Your task to perform on an android device: Go to CNN.com Image 0: 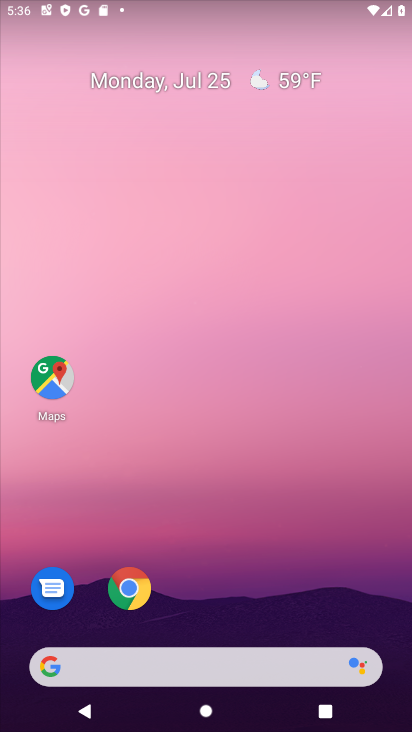
Step 0: click (267, 662)
Your task to perform on an android device: Go to CNN.com Image 1: 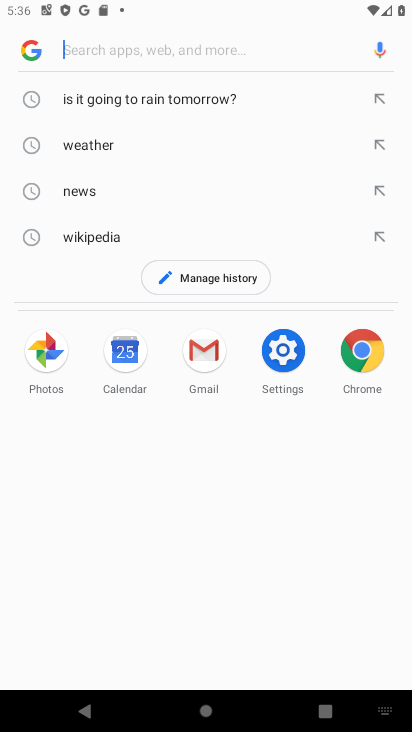
Step 1: type "CNN.com"
Your task to perform on an android device: Go to CNN.com Image 2: 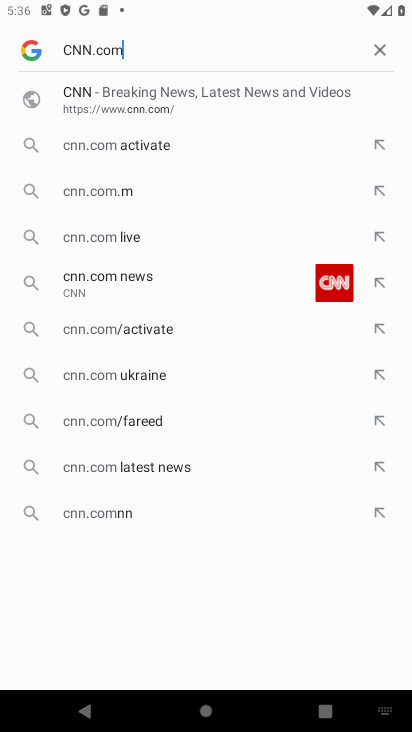
Step 2: press enter
Your task to perform on an android device: Go to CNN.com Image 3: 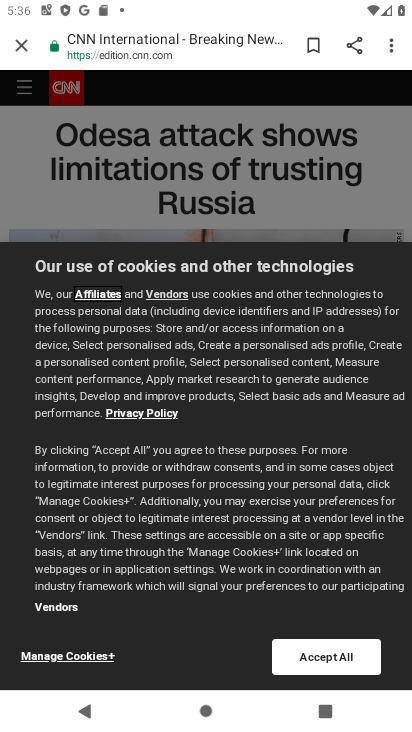
Step 3: task complete